Your task to perform on an android device: change text size in settings app Image 0: 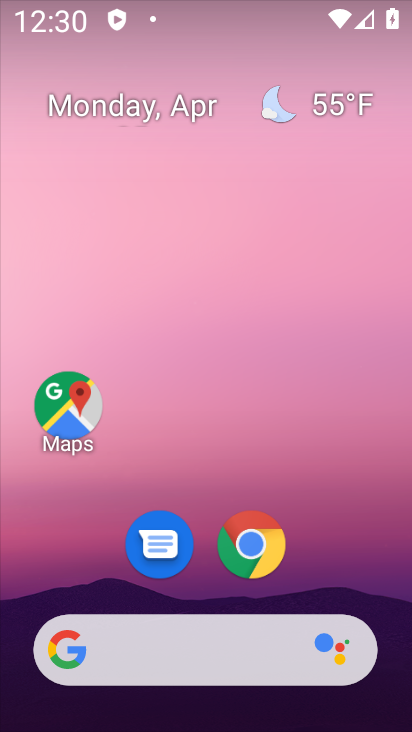
Step 0: drag from (345, 573) to (28, 90)
Your task to perform on an android device: change text size in settings app Image 1: 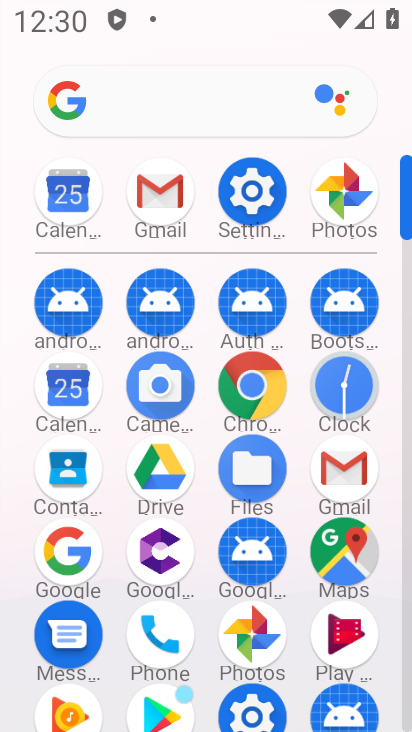
Step 1: click (262, 200)
Your task to perform on an android device: change text size in settings app Image 2: 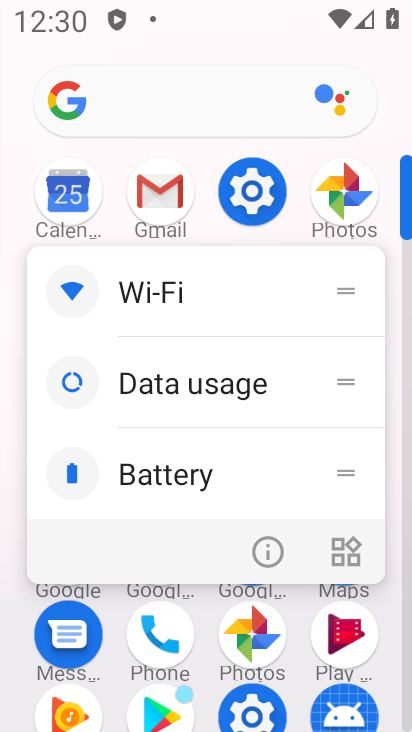
Step 2: click (252, 192)
Your task to perform on an android device: change text size in settings app Image 3: 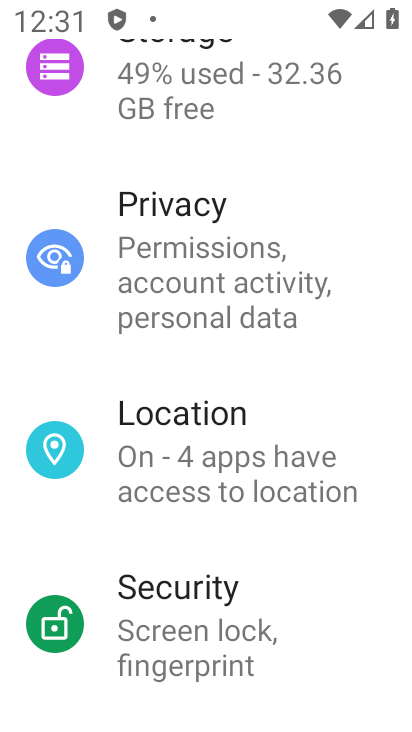
Step 3: drag from (273, 166) to (199, 659)
Your task to perform on an android device: change text size in settings app Image 4: 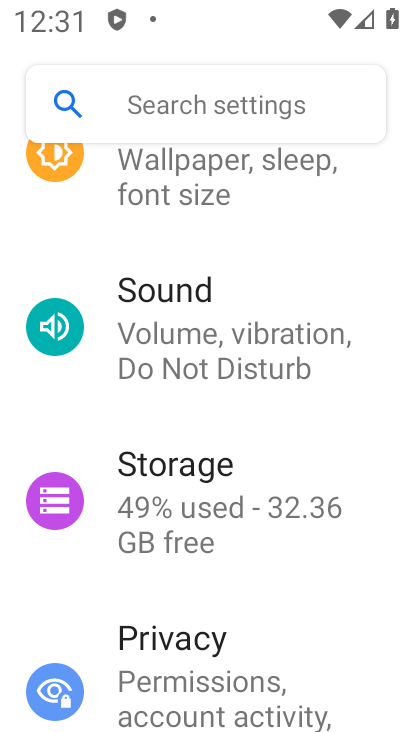
Step 4: click (180, 188)
Your task to perform on an android device: change text size in settings app Image 5: 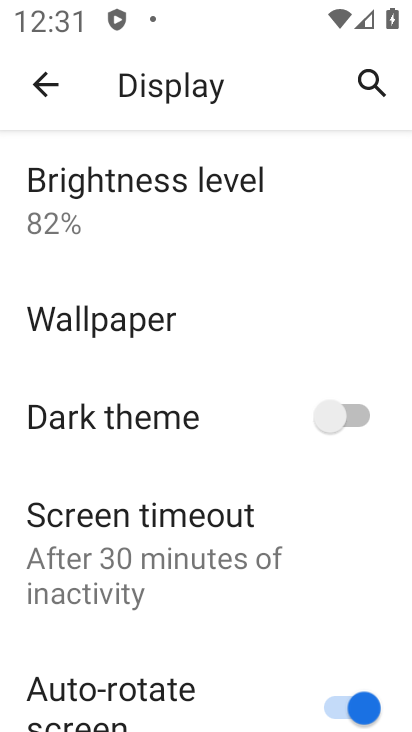
Step 5: drag from (173, 631) to (131, 234)
Your task to perform on an android device: change text size in settings app Image 6: 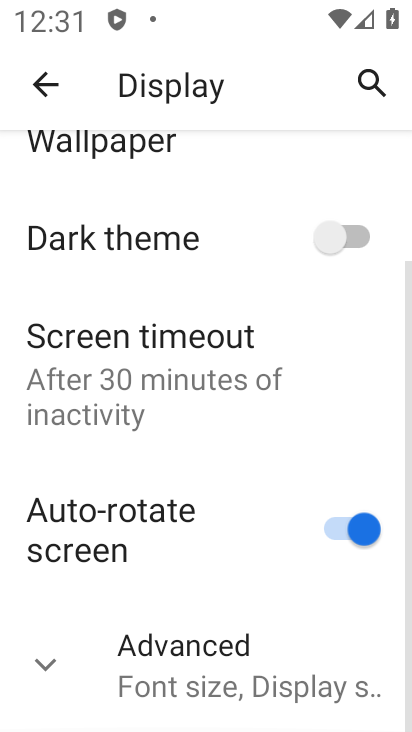
Step 6: click (191, 688)
Your task to perform on an android device: change text size in settings app Image 7: 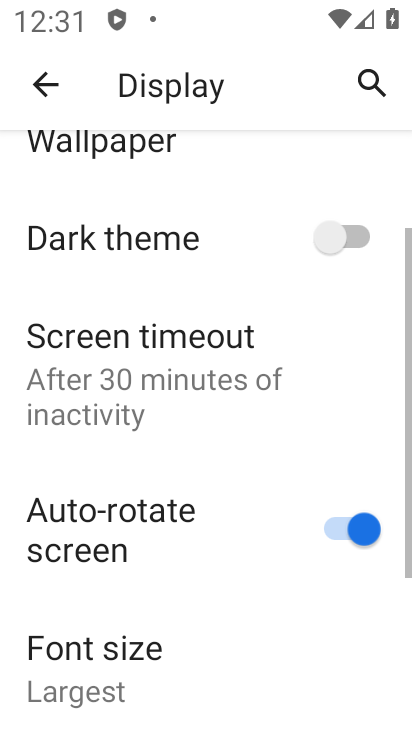
Step 7: click (82, 689)
Your task to perform on an android device: change text size in settings app Image 8: 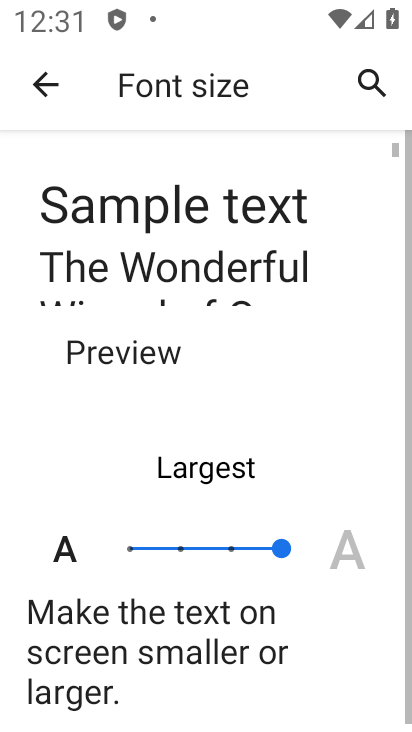
Step 8: drag from (82, 689) to (89, 492)
Your task to perform on an android device: change text size in settings app Image 9: 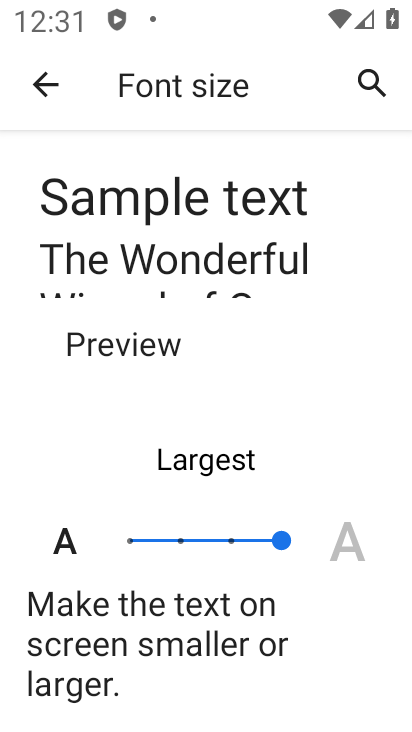
Step 9: click (126, 540)
Your task to perform on an android device: change text size in settings app Image 10: 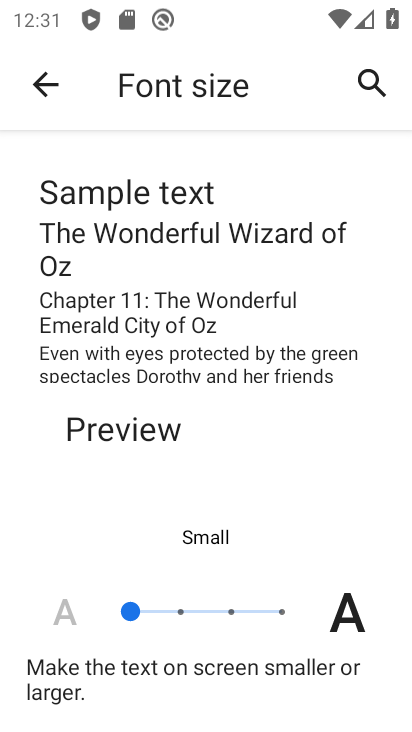
Step 10: task complete